Your task to perform on an android device: Open the phone app and click the voicemail tab. Image 0: 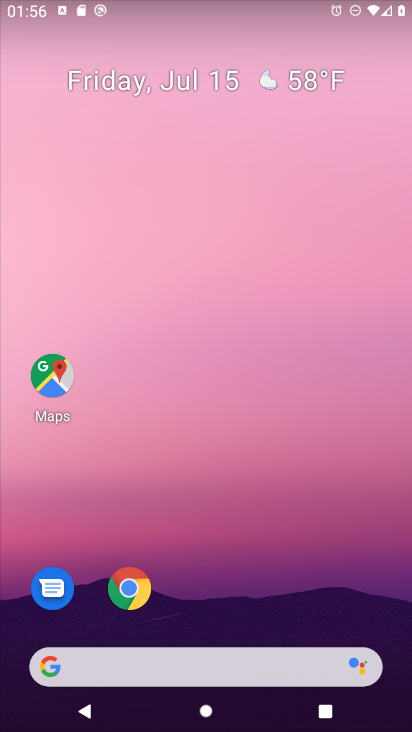
Step 0: drag from (369, 599) to (317, 98)
Your task to perform on an android device: Open the phone app and click the voicemail tab. Image 1: 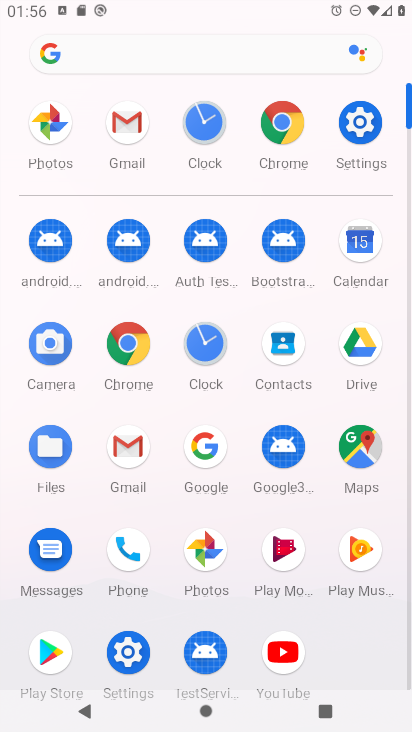
Step 1: click (127, 556)
Your task to perform on an android device: Open the phone app and click the voicemail tab. Image 2: 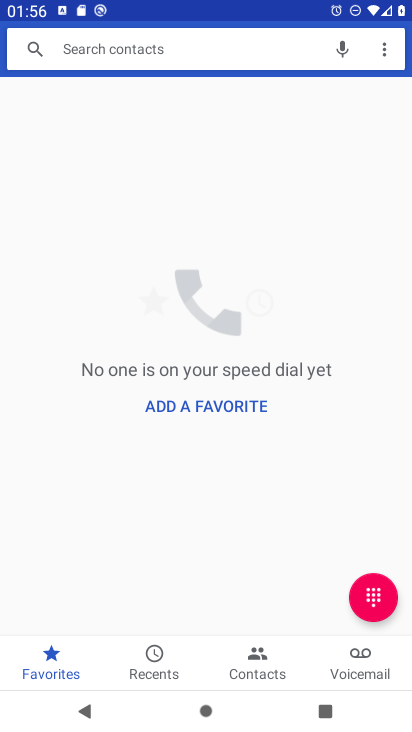
Step 2: click (355, 653)
Your task to perform on an android device: Open the phone app and click the voicemail tab. Image 3: 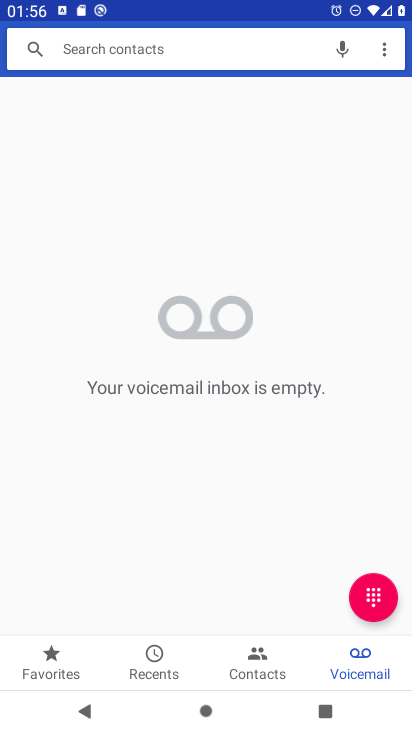
Step 3: task complete